Your task to perform on an android device: allow cookies in the chrome app Image 0: 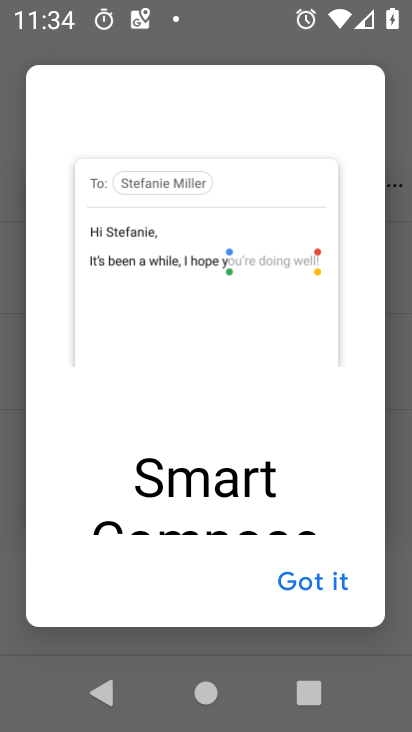
Step 0: press home button
Your task to perform on an android device: allow cookies in the chrome app Image 1: 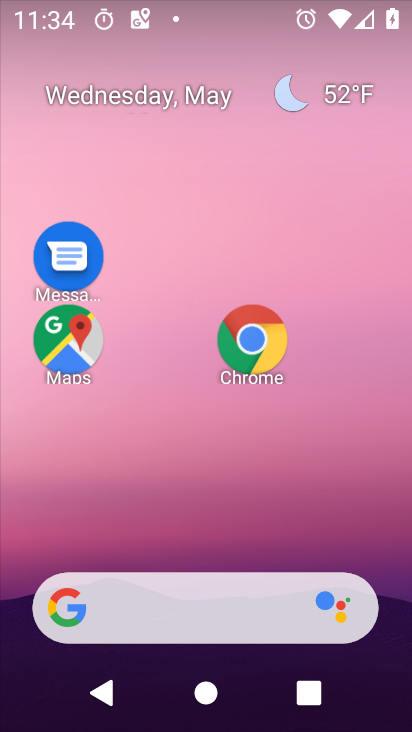
Step 1: click (254, 340)
Your task to perform on an android device: allow cookies in the chrome app Image 2: 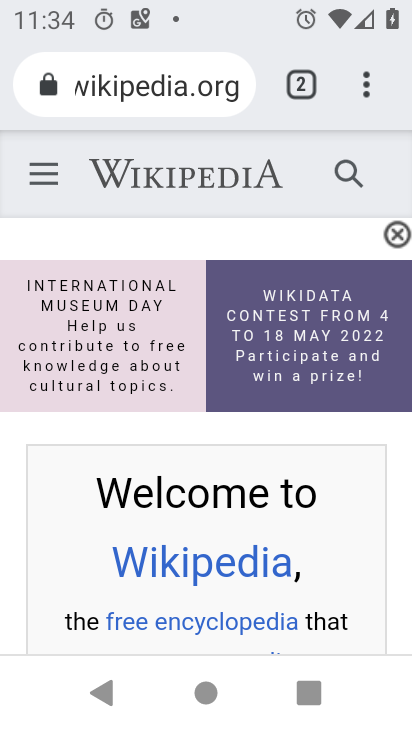
Step 2: click (358, 87)
Your task to perform on an android device: allow cookies in the chrome app Image 3: 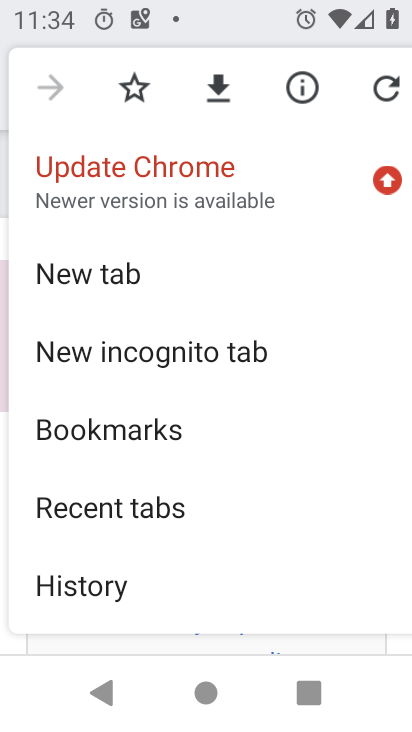
Step 3: drag from (186, 548) to (215, 196)
Your task to perform on an android device: allow cookies in the chrome app Image 4: 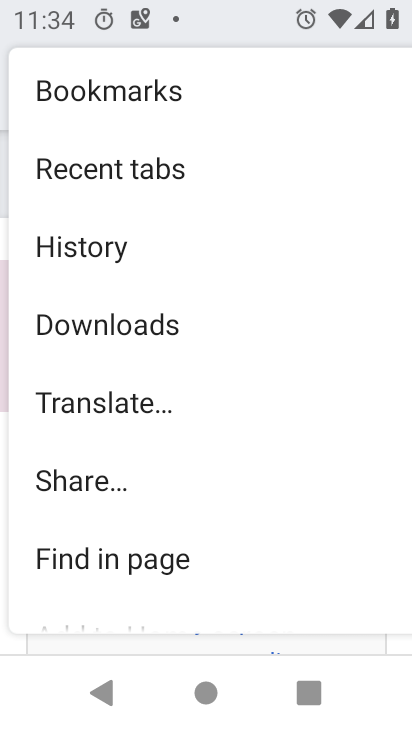
Step 4: drag from (124, 522) to (176, 219)
Your task to perform on an android device: allow cookies in the chrome app Image 5: 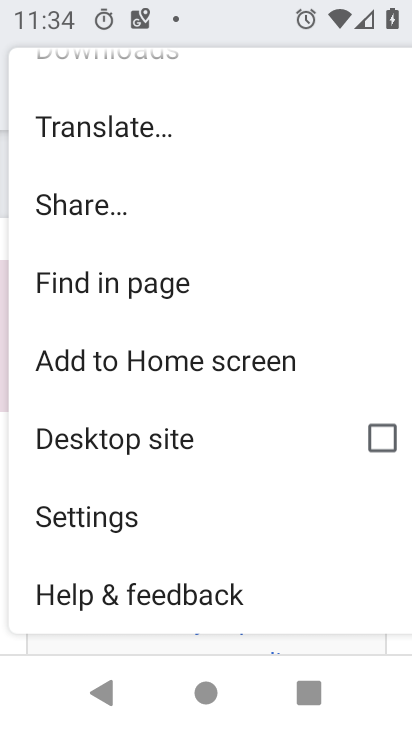
Step 5: click (104, 517)
Your task to perform on an android device: allow cookies in the chrome app Image 6: 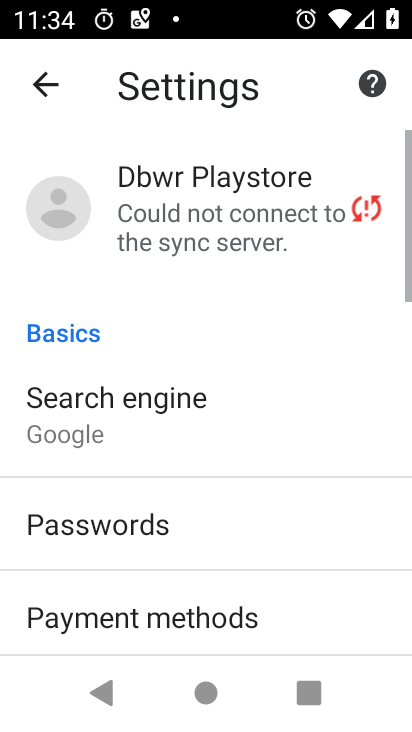
Step 6: drag from (225, 544) to (232, 207)
Your task to perform on an android device: allow cookies in the chrome app Image 7: 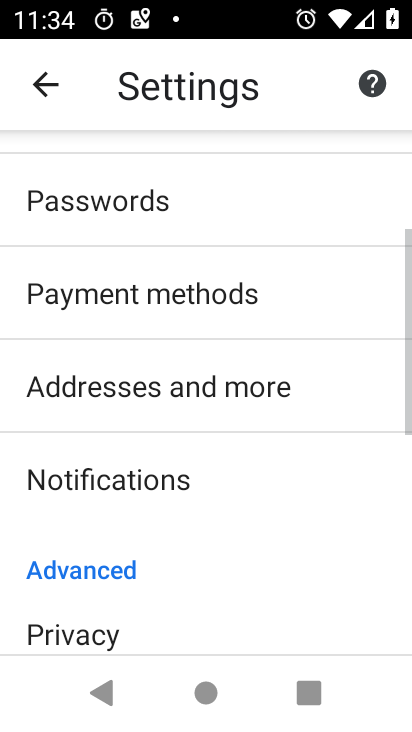
Step 7: drag from (198, 575) to (226, 226)
Your task to perform on an android device: allow cookies in the chrome app Image 8: 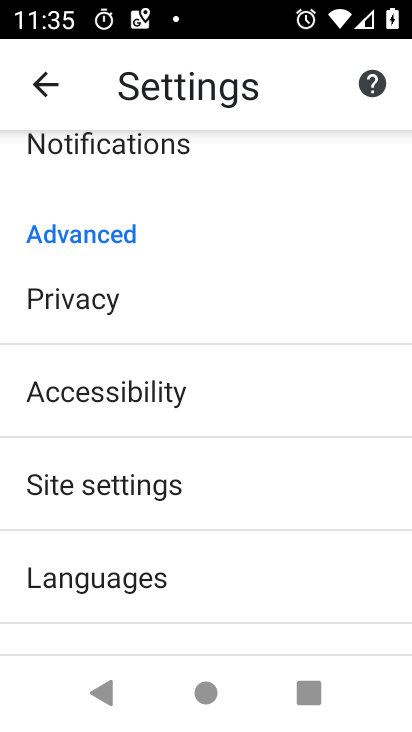
Step 8: click (119, 486)
Your task to perform on an android device: allow cookies in the chrome app Image 9: 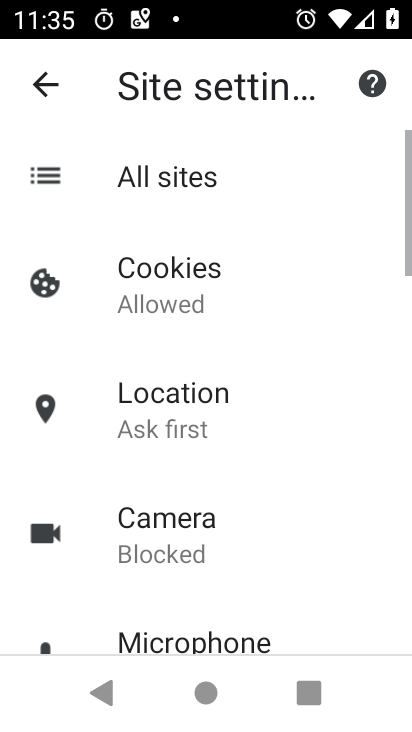
Step 9: click (193, 295)
Your task to perform on an android device: allow cookies in the chrome app Image 10: 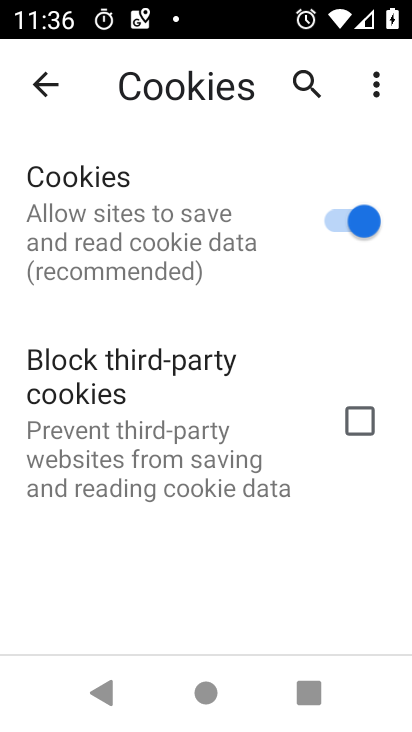
Step 10: task complete